Your task to perform on an android device: Search for "razer huntsman" on newegg.com, select the first entry, add it to the cart, then select checkout. Image 0: 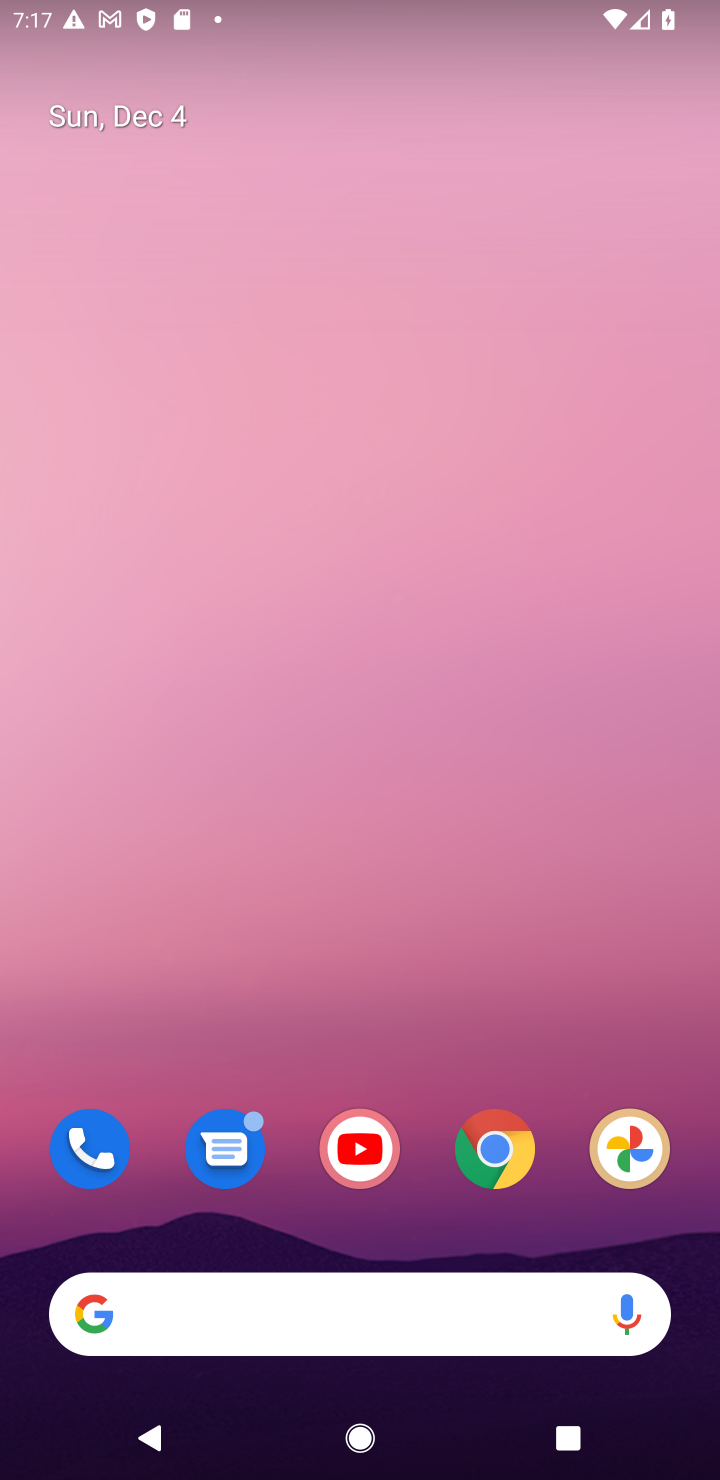
Step 0: drag from (397, 739) to (400, 481)
Your task to perform on an android device: Search for "razer huntsman" on newegg.com, select the first entry, add it to the cart, then select checkout. Image 1: 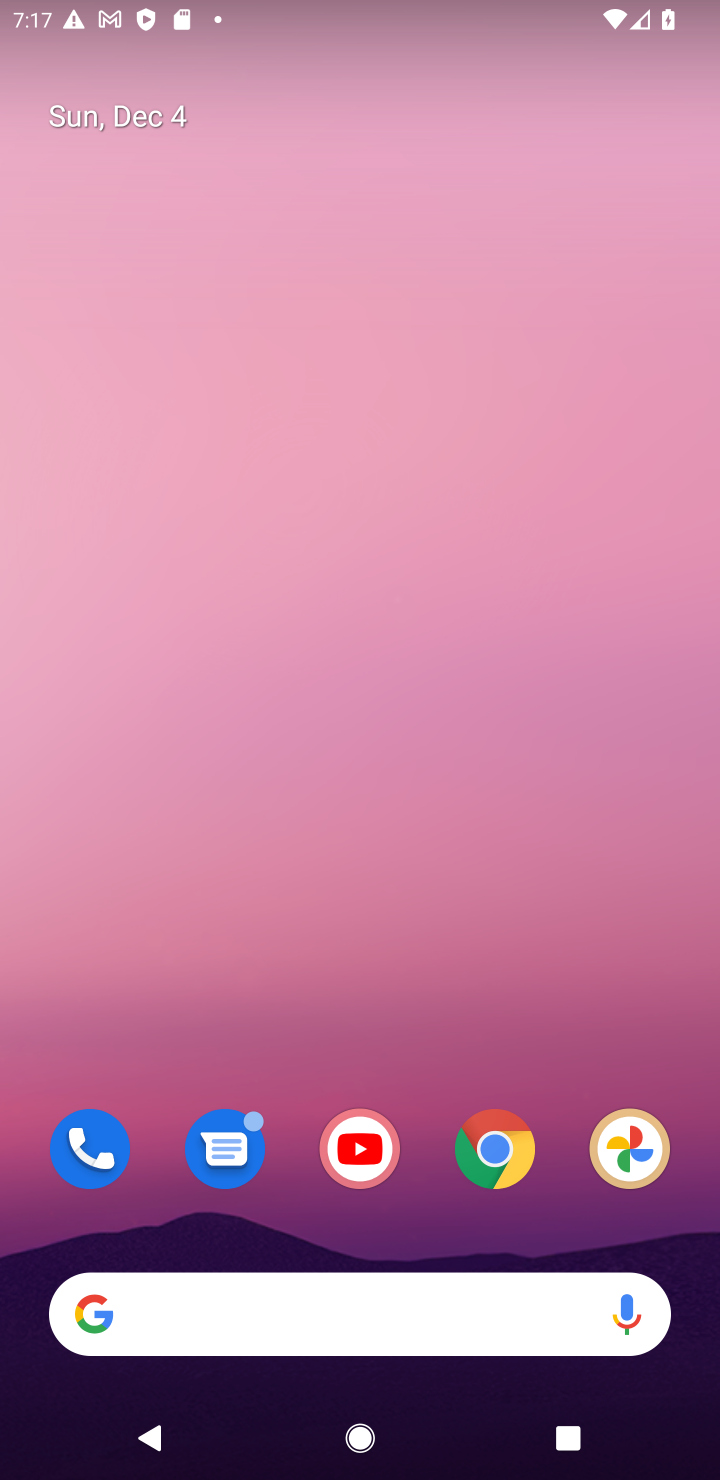
Step 1: drag from (331, 1327) to (366, 365)
Your task to perform on an android device: Search for "razer huntsman" on newegg.com, select the first entry, add it to the cart, then select checkout. Image 2: 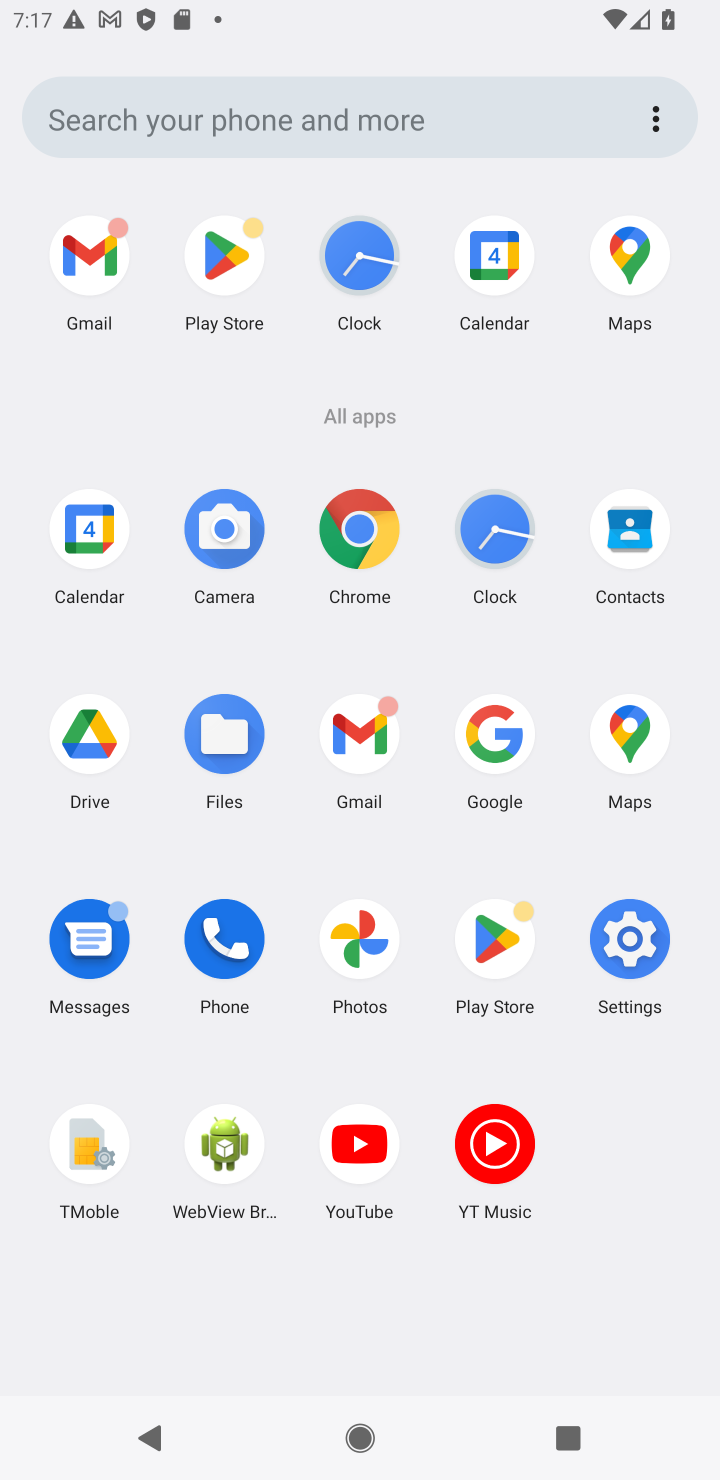
Step 2: click (498, 736)
Your task to perform on an android device: Search for "razer huntsman" on newegg.com, select the first entry, add it to the cart, then select checkout. Image 3: 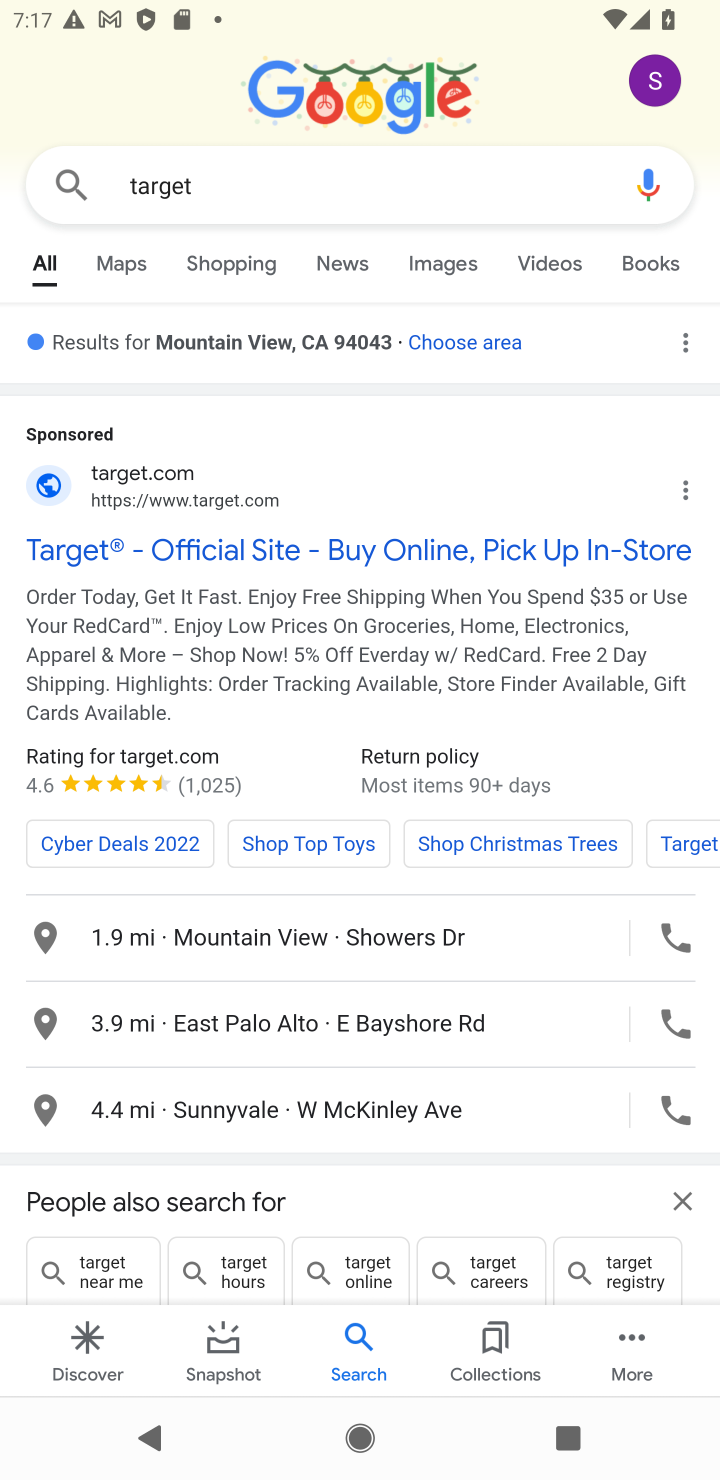
Step 3: click (199, 188)
Your task to perform on an android device: Search for "razer huntsman" on newegg.com, select the first entry, add it to the cart, then select checkout. Image 4: 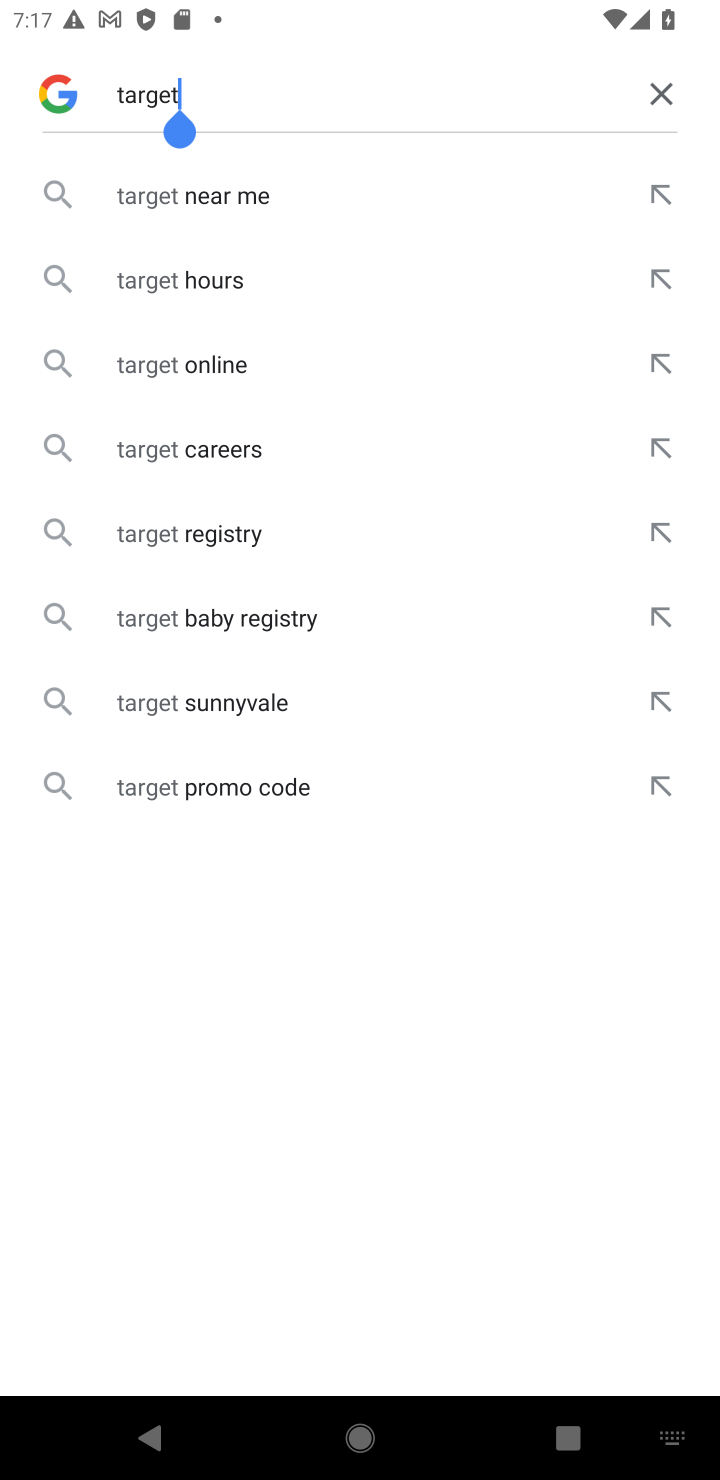
Step 4: click (660, 87)
Your task to perform on an android device: Search for "razer huntsman" on newegg.com, select the first entry, add it to the cart, then select checkout. Image 5: 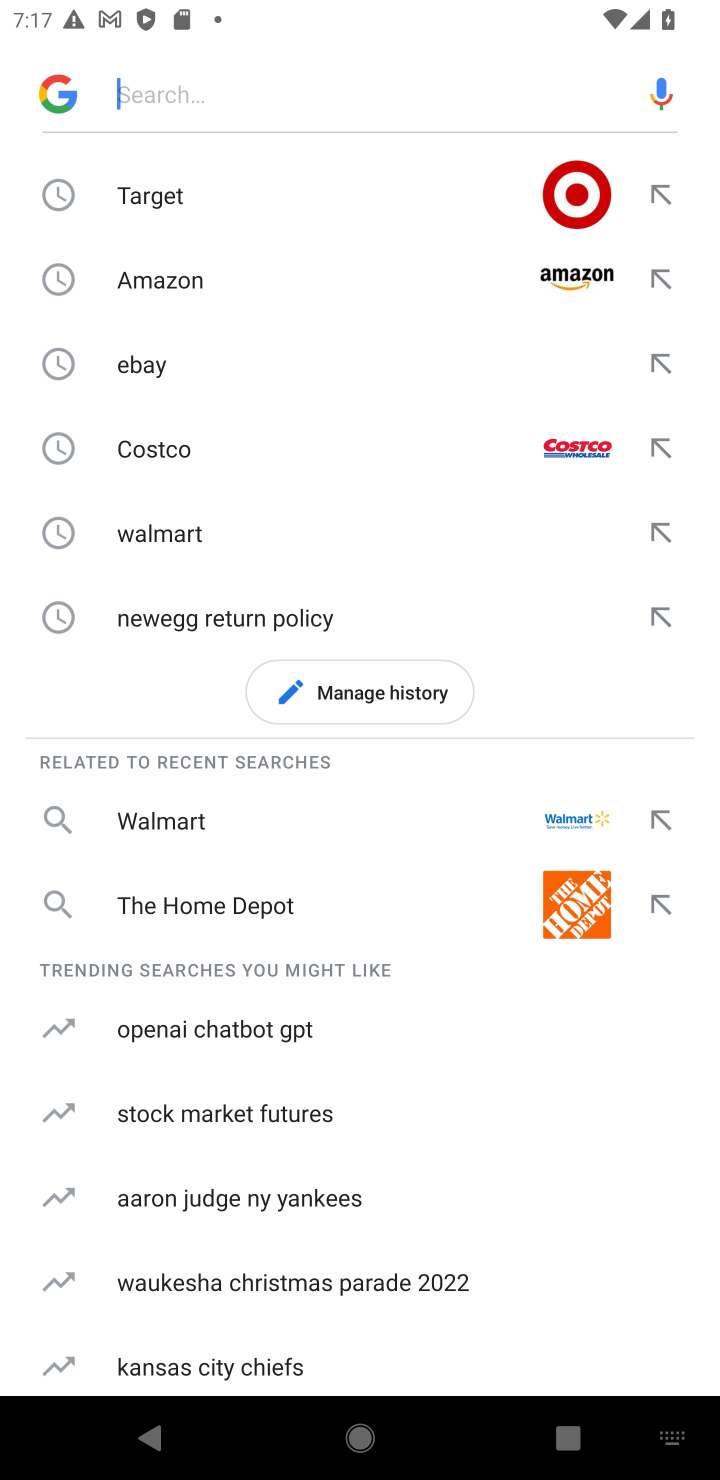
Step 5: drag from (248, 1102) to (252, 472)
Your task to perform on an android device: Search for "razer huntsman" on newegg.com, select the first entry, add it to the cart, then select checkout. Image 6: 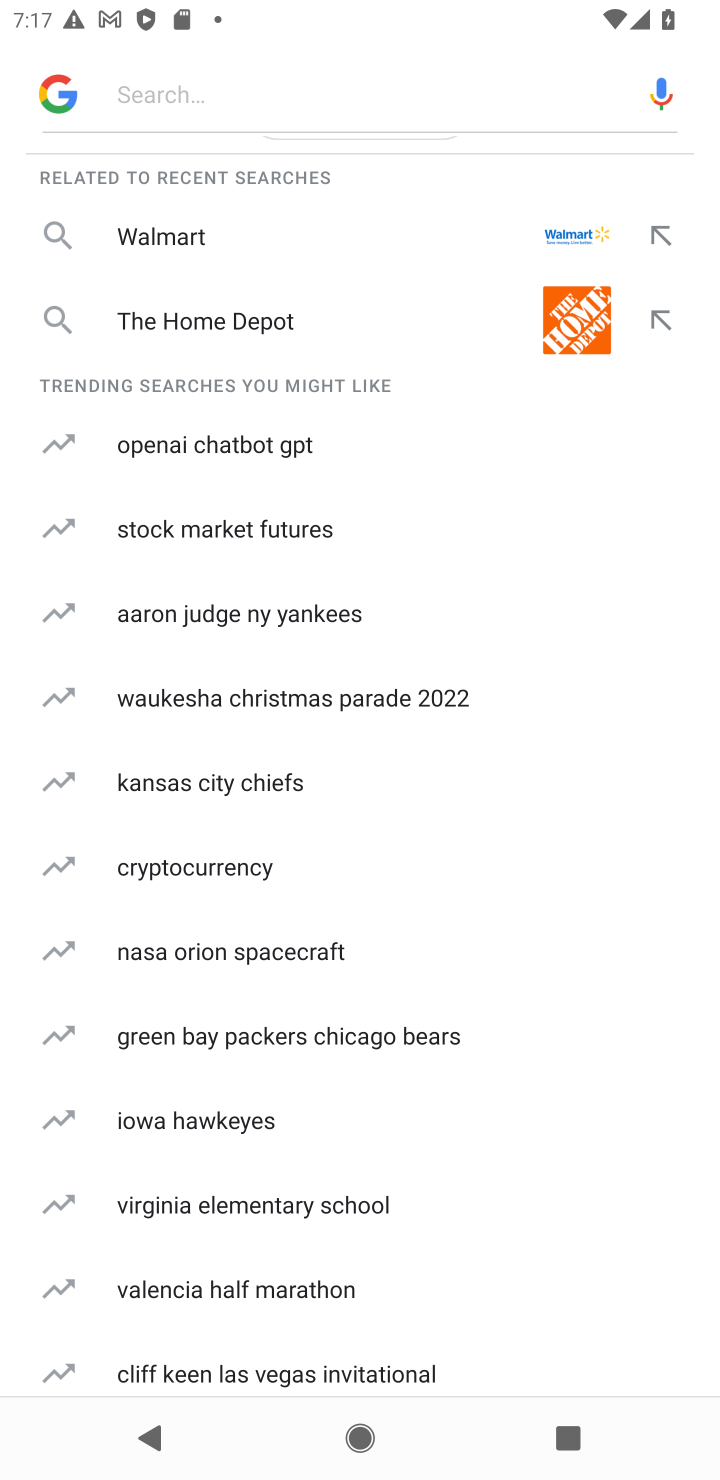
Step 6: drag from (238, 1138) to (260, 556)
Your task to perform on an android device: Search for "razer huntsman" on newegg.com, select the first entry, add it to the cart, then select checkout. Image 7: 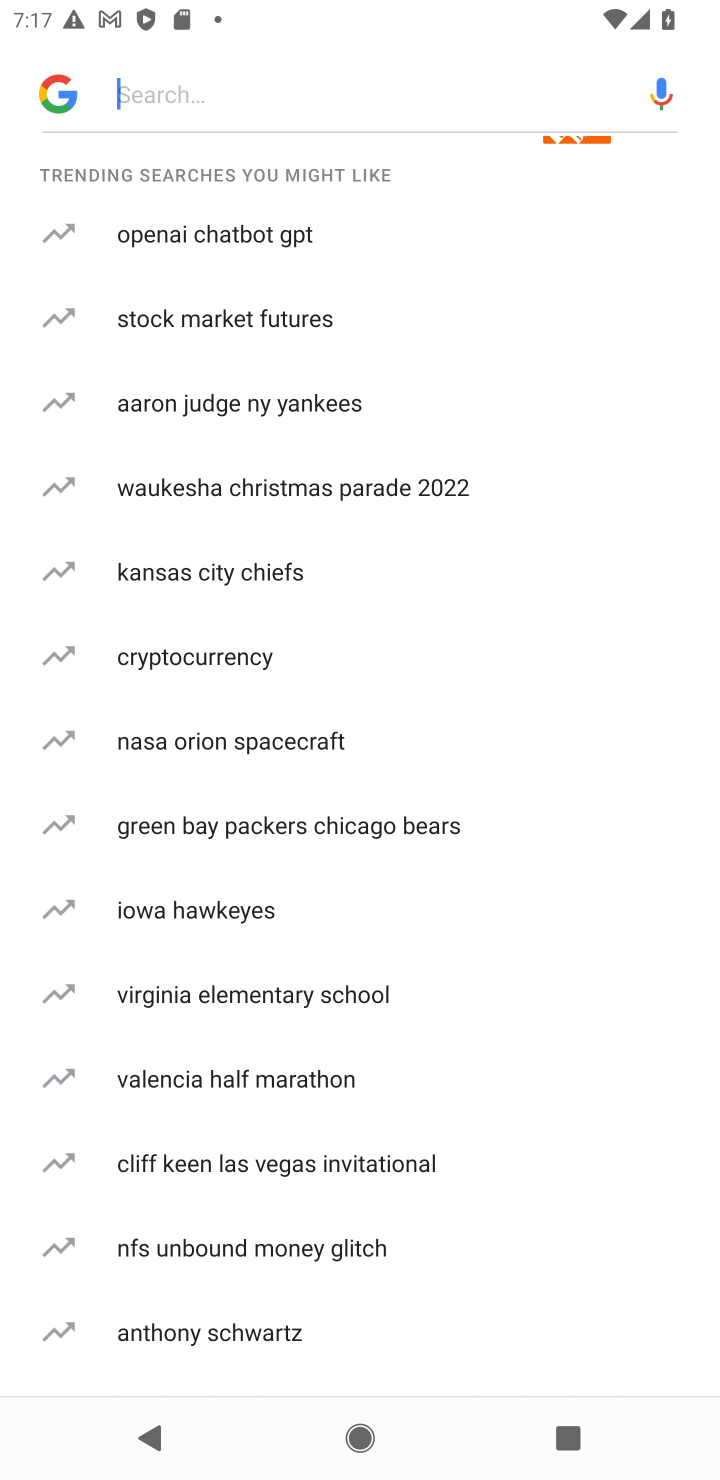
Step 7: type "newegg"
Your task to perform on an android device: Search for "razer huntsman" on newegg.com, select the first entry, add it to the cart, then select checkout. Image 8: 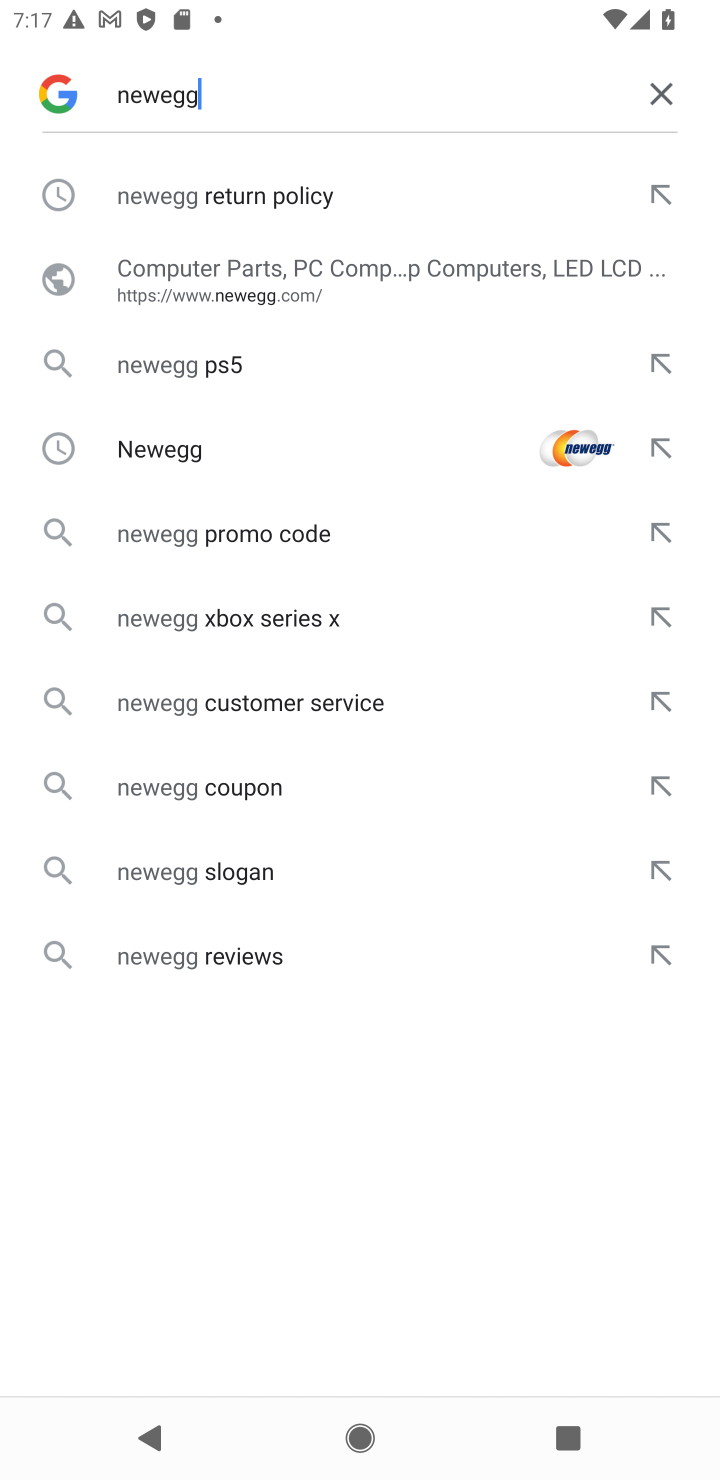
Step 8: click (235, 271)
Your task to perform on an android device: Search for "razer huntsman" on newegg.com, select the first entry, add it to the cart, then select checkout. Image 9: 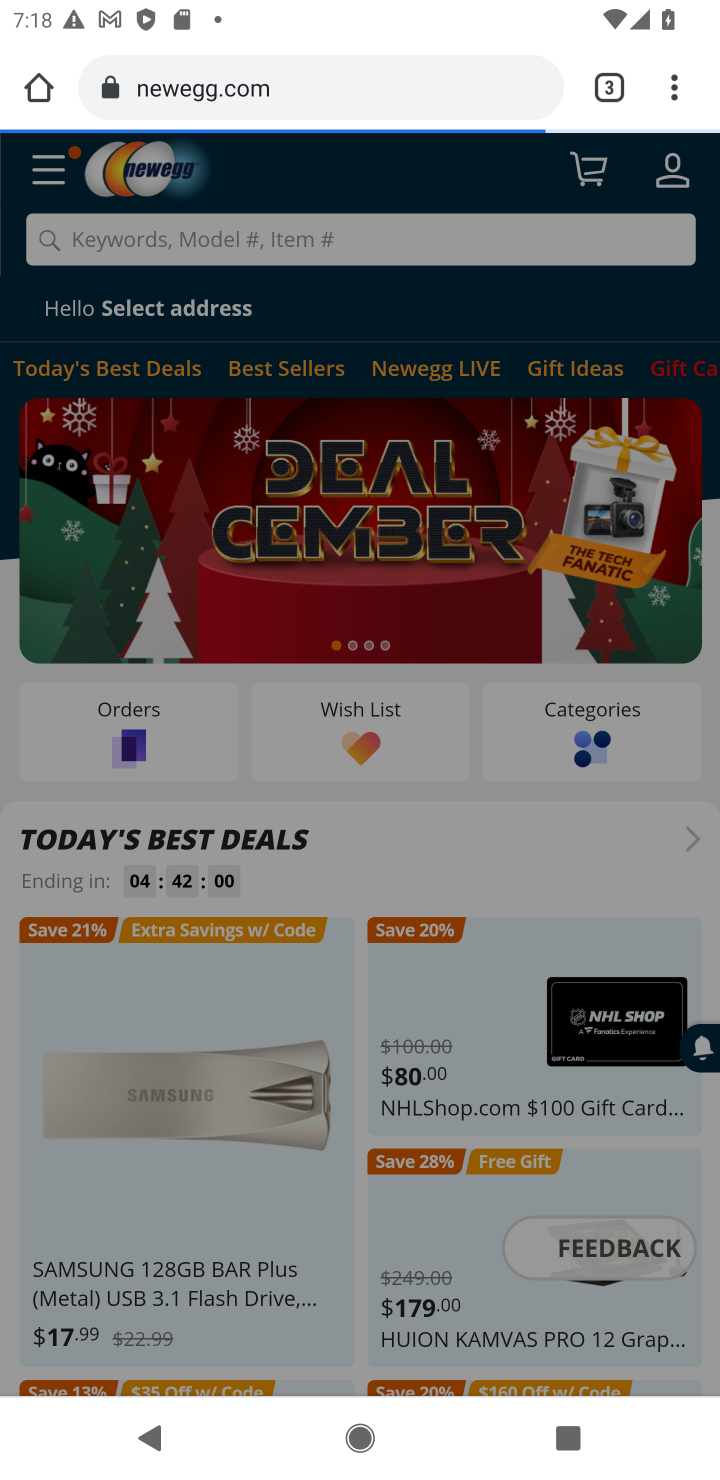
Step 9: click (321, 240)
Your task to perform on an android device: Search for "razer huntsman" on newegg.com, select the first entry, add it to the cart, then select checkout. Image 10: 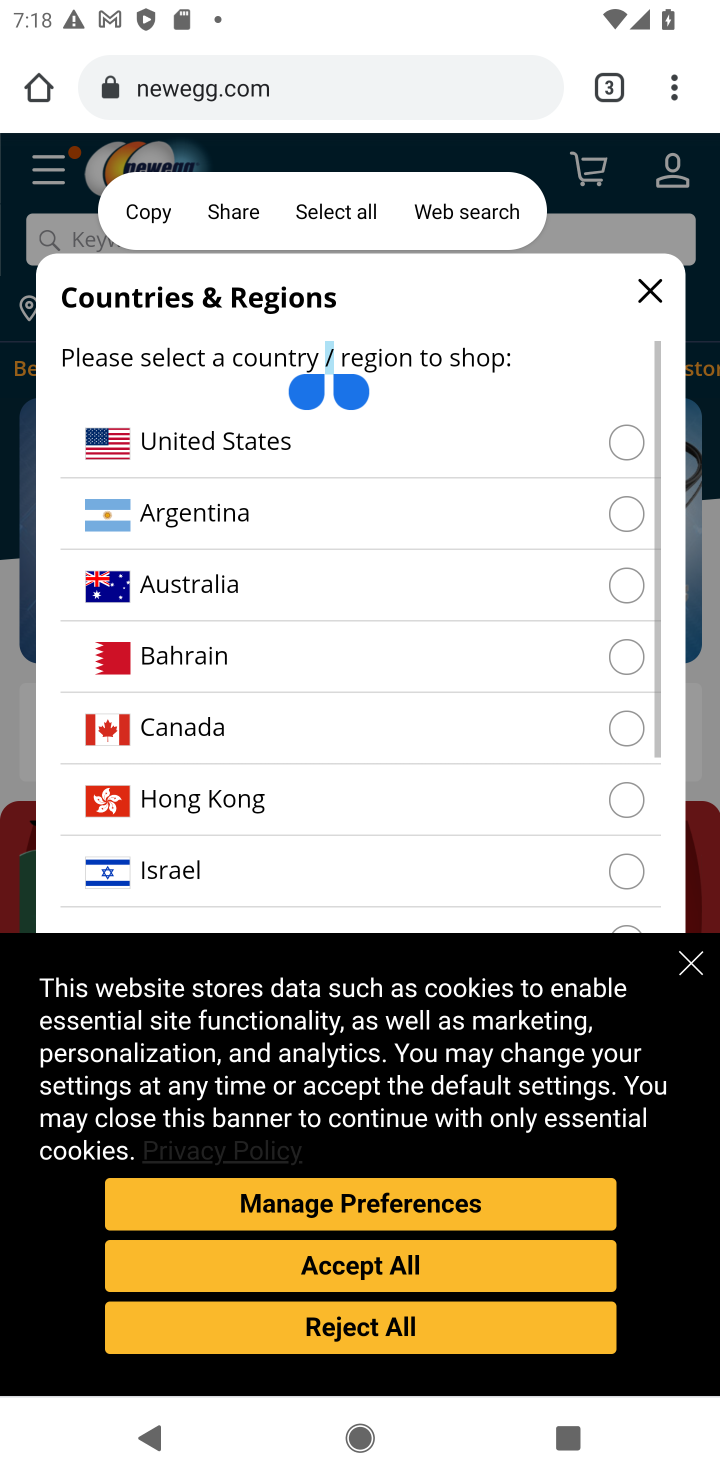
Step 10: click (656, 284)
Your task to perform on an android device: Search for "razer huntsman" on newegg.com, select the first entry, add it to the cart, then select checkout. Image 11: 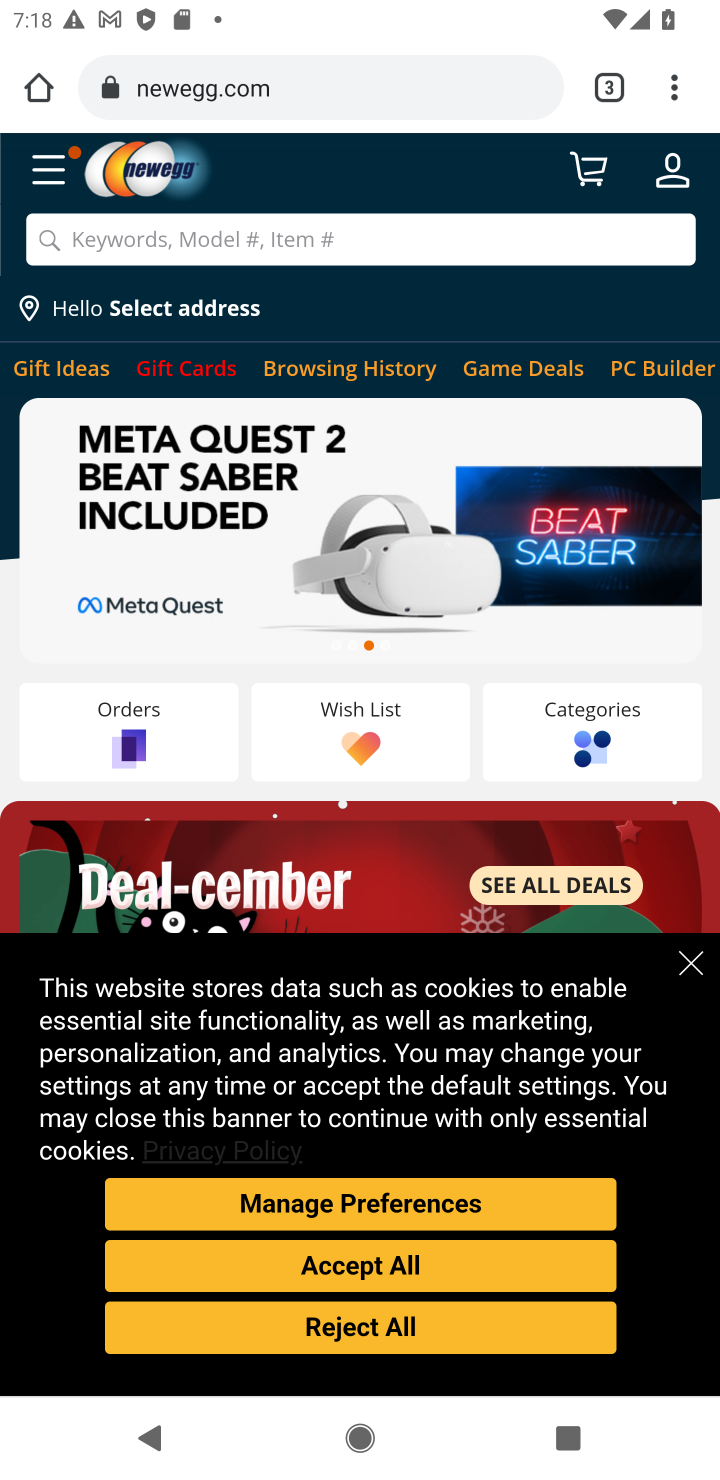
Step 11: type "razer huntsman"
Your task to perform on an android device: Search for "razer huntsman" on newegg.com, select the first entry, add it to the cart, then select checkout. Image 12: 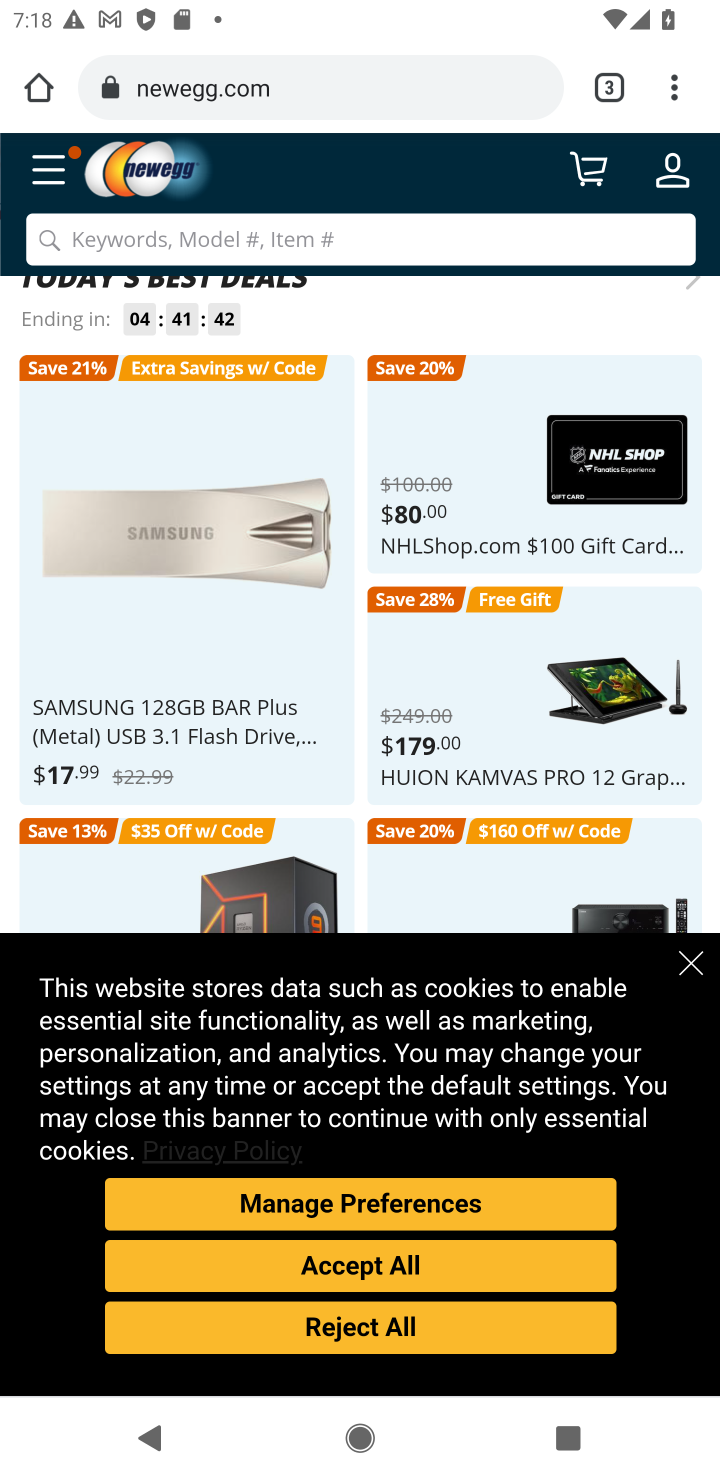
Step 12: click (699, 962)
Your task to perform on an android device: Search for "razer huntsman" on newegg.com, select the first entry, add it to the cart, then select checkout. Image 13: 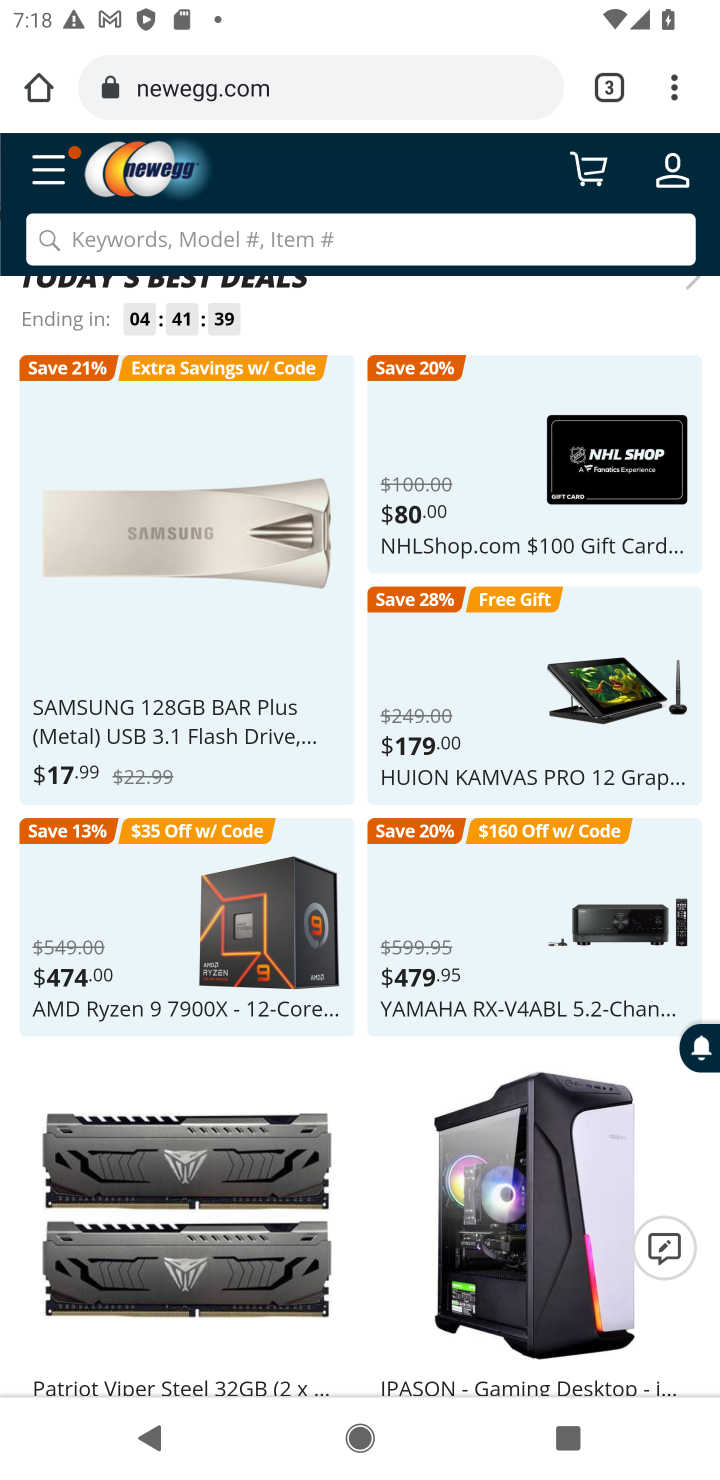
Step 13: click (128, 240)
Your task to perform on an android device: Search for "razer huntsman" on newegg.com, select the first entry, add it to the cart, then select checkout. Image 14: 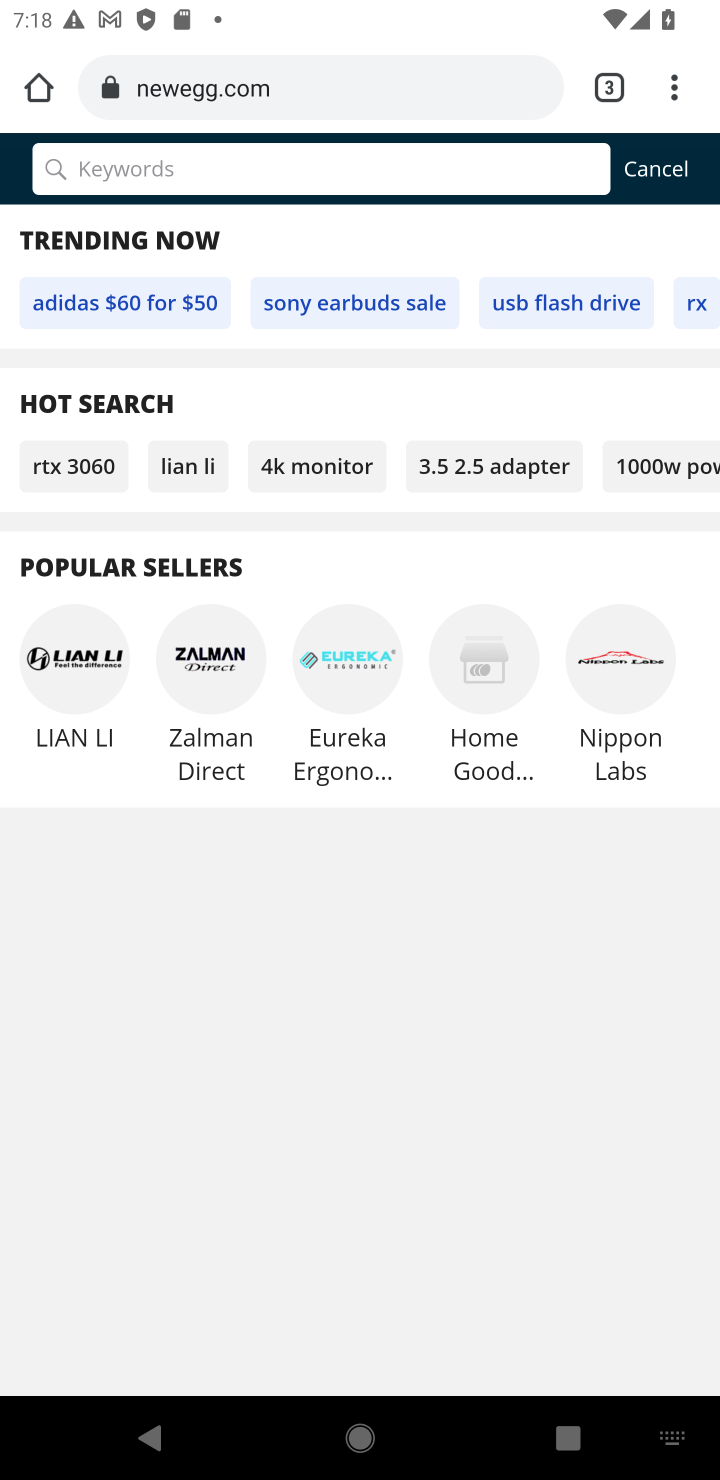
Step 14: click (93, 171)
Your task to perform on an android device: Search for "razer huntsman" on newegg.com, select the first entry, add it to the cart, then select checkout. Image 15: 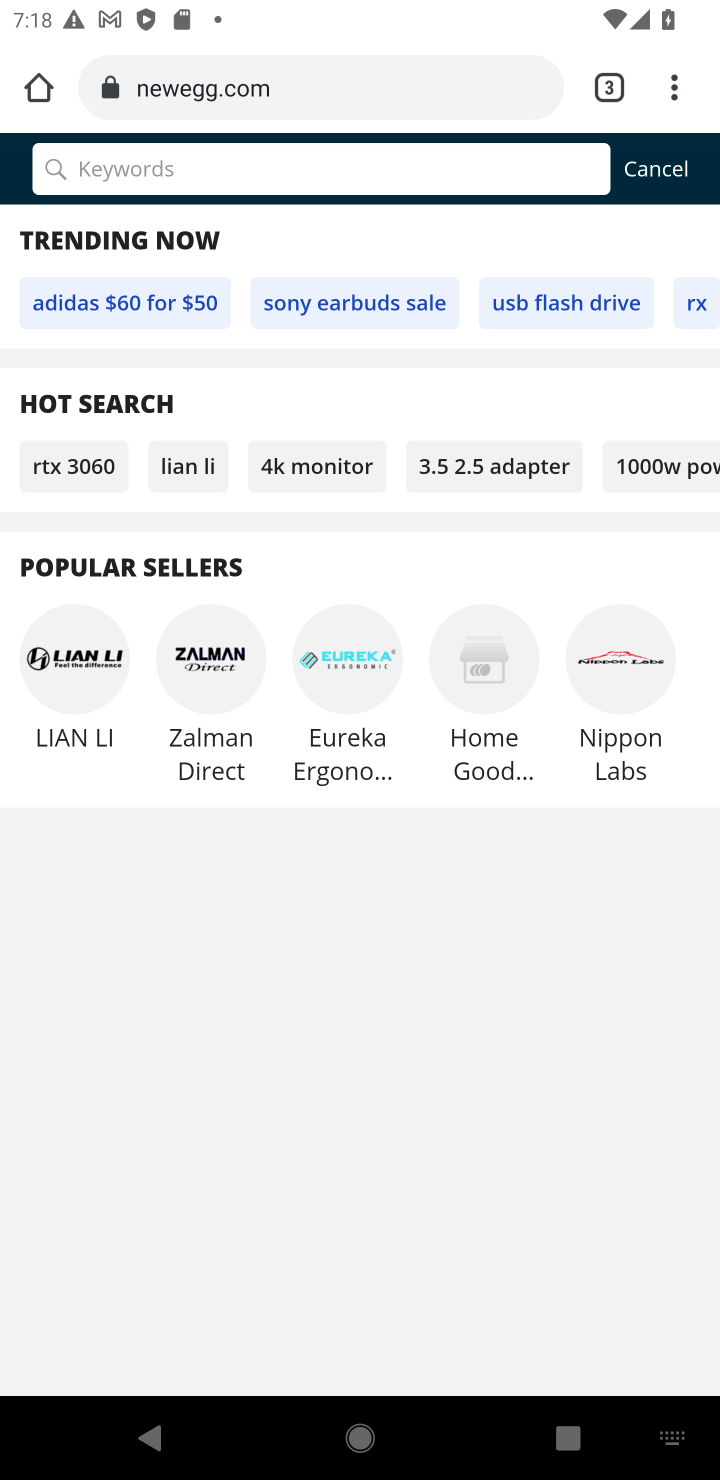
Step 15: type "razer huntsman"
Your task to perform on an android device: Search for "razer huntsman" on newegg.com, select the first entry, add it to the cart, then select checkout. Image 16: 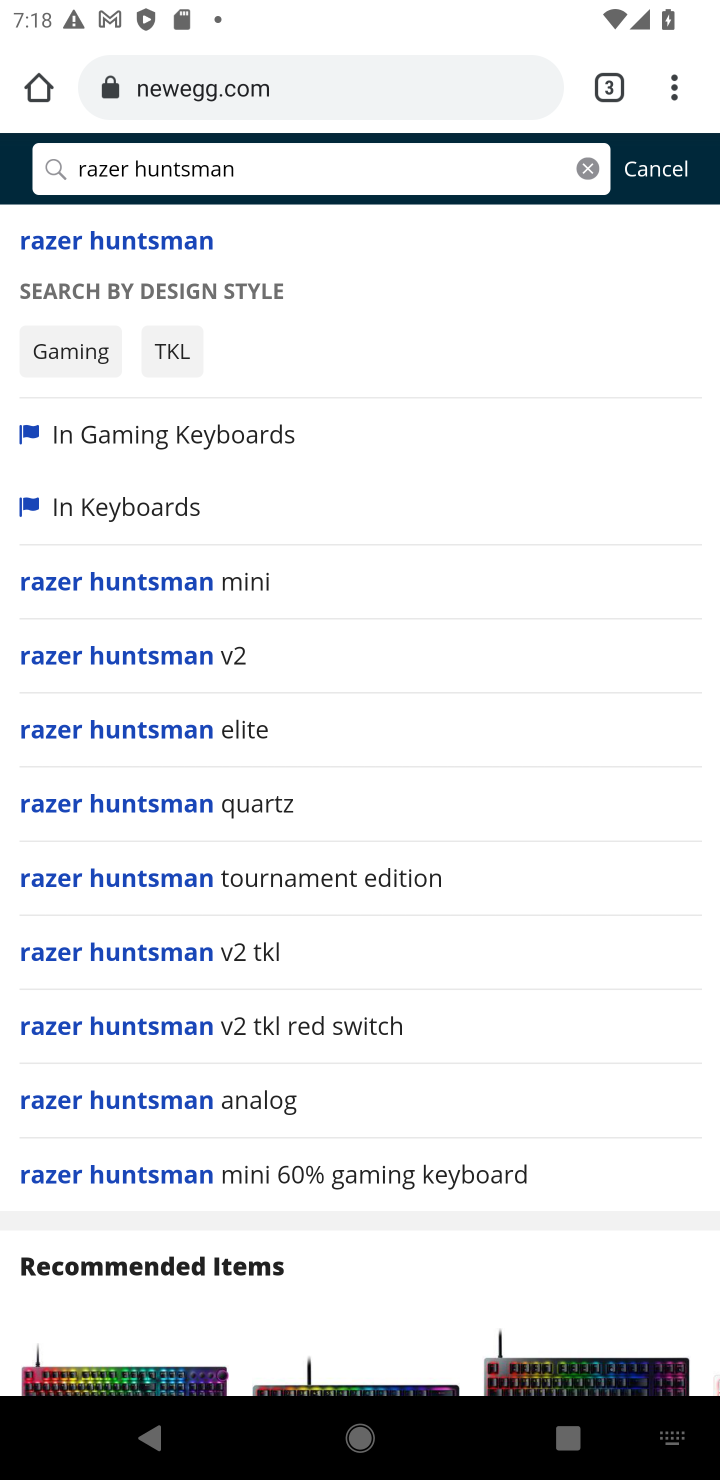
Step 16: click (117, 592)
Your task to perform on an android device: Search for "razer huntsman" on newegg.com, select the first entry, add it to the cart, then select checkout. Image 17: 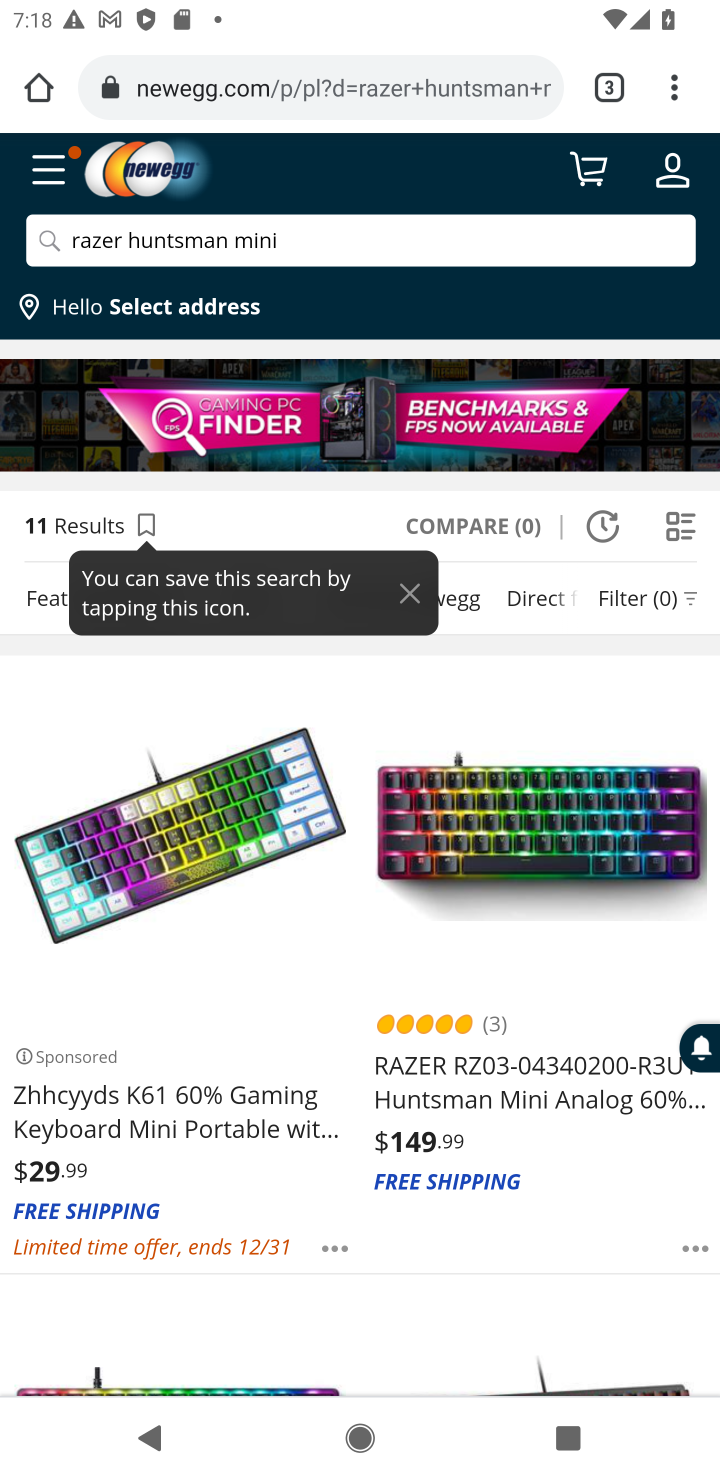
Step 17: drag from (150, 1229) to (150, 620)
Your task to perform on an android device: Search for "razer huntsman" on newegg.com, select the first entry, add it to the cart, then select checkout. Image 18: 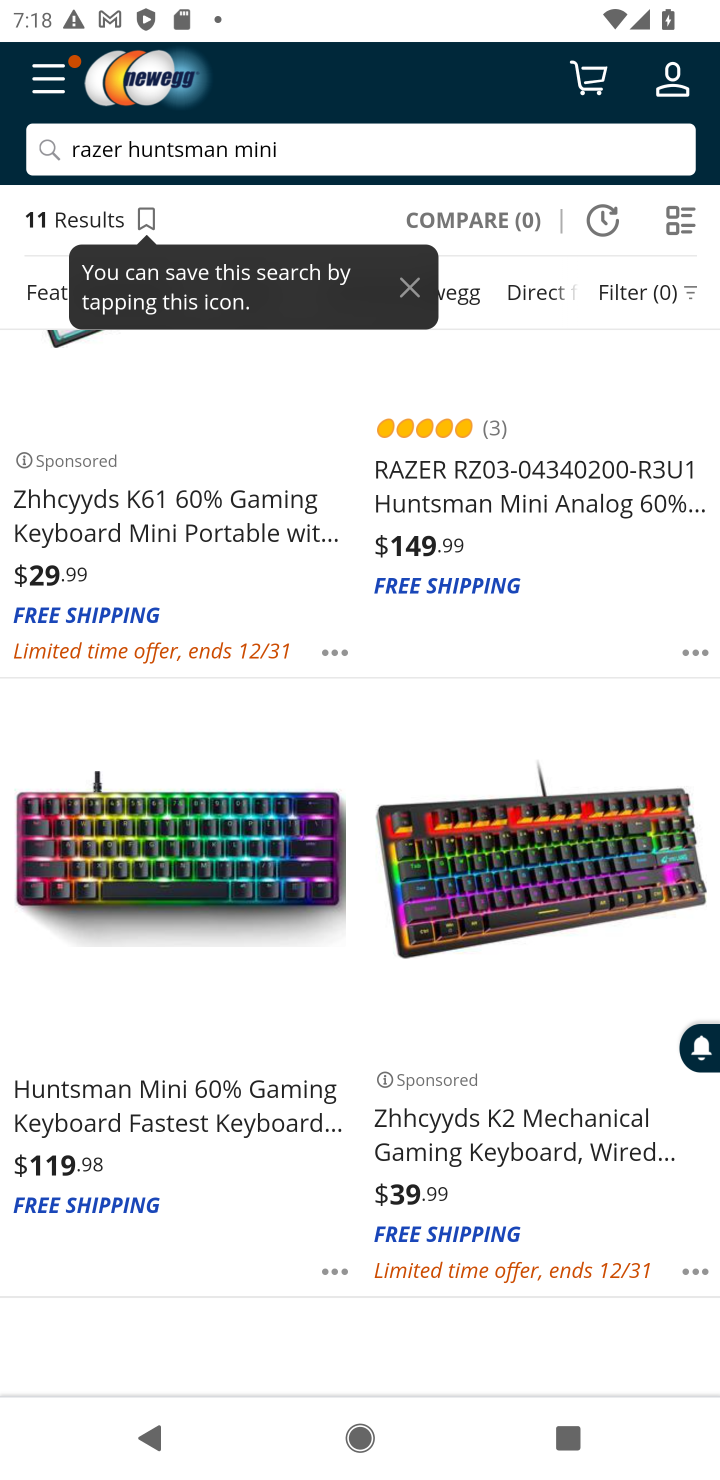
Step 18: click (132, 566)
Your task to perform on an android device: Search for "razer huntsman" on newegg.com, select the first entry, add it to the cart, then select checkout. Image 19: 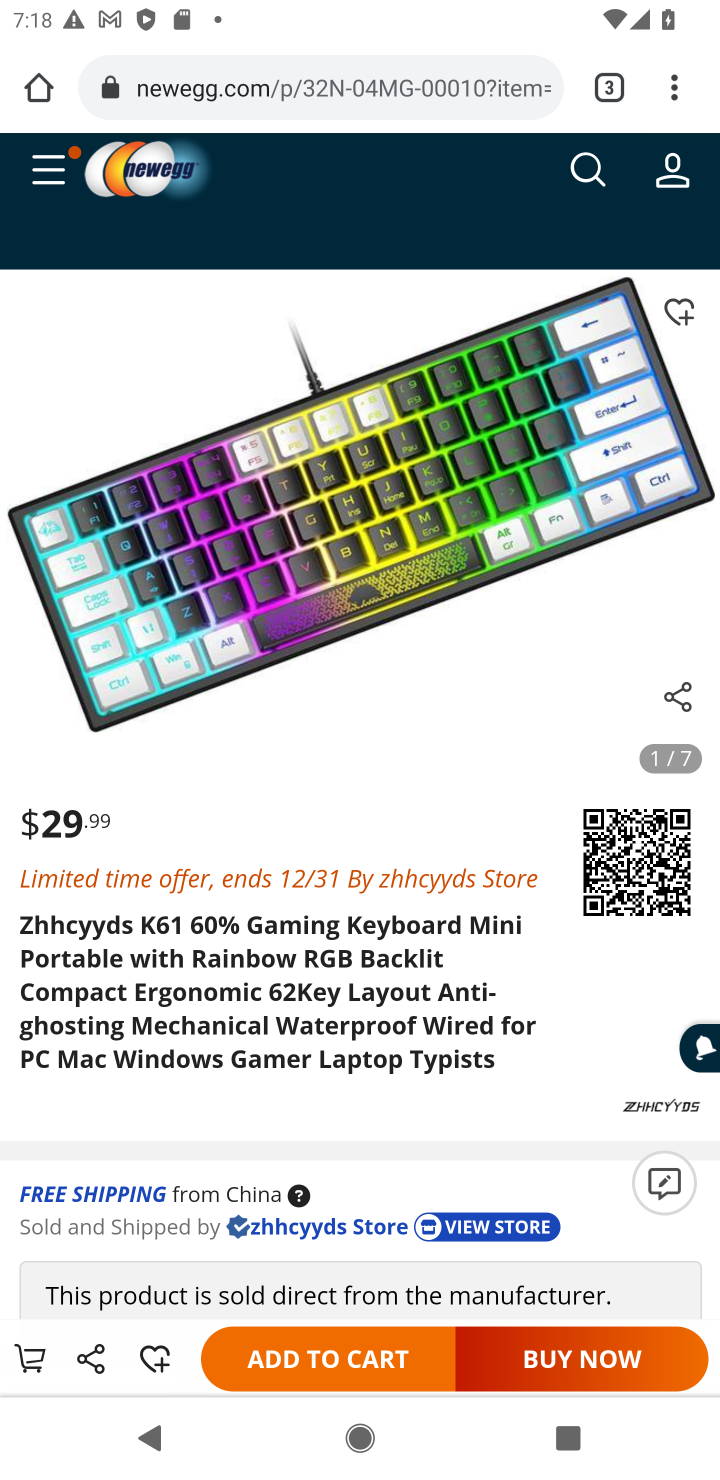
Step 19: click (351, 1366)
Your task to perform on an android device: Search for "razer huntsman" on newegg.com, select the first entry, add it to the cart, then select checkout. Image 20: 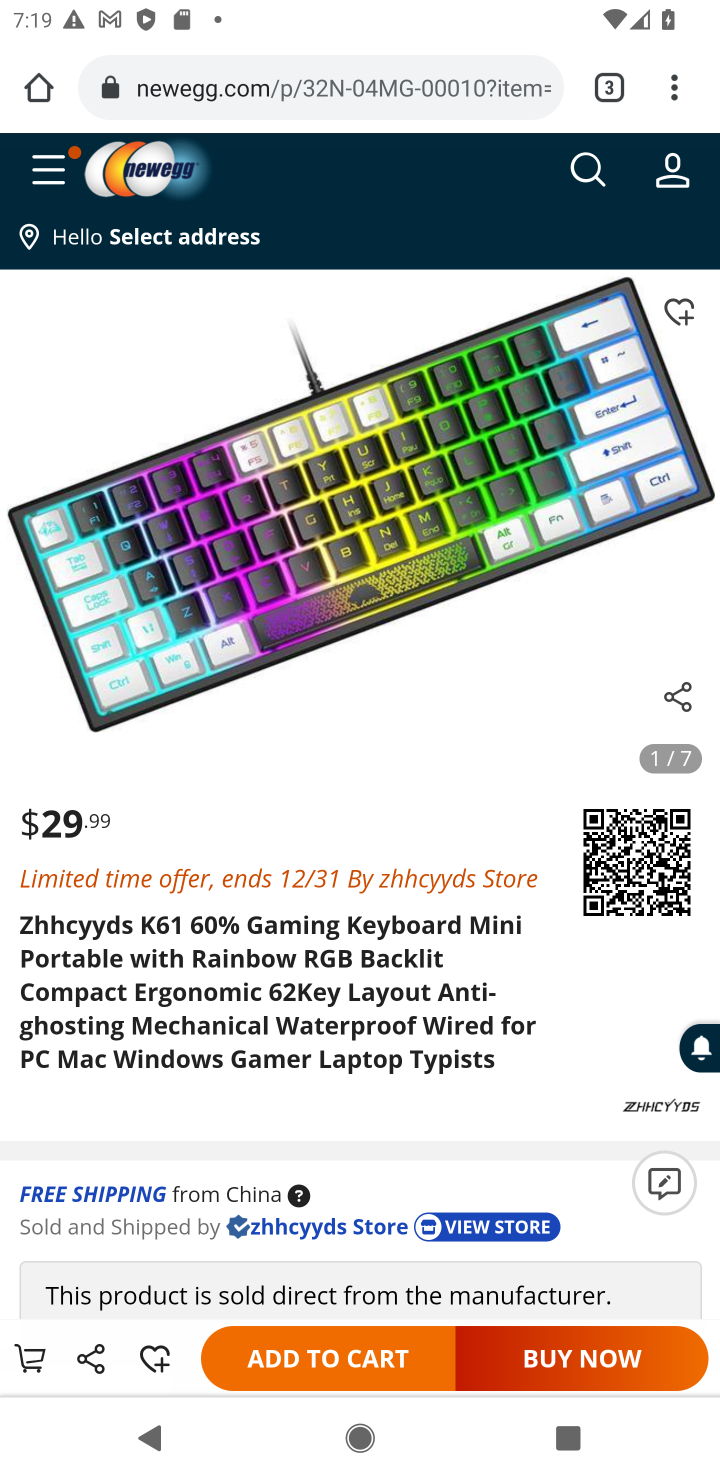
Step 20: click (350, 1363)
Your task to perform on an android device: Search for "razer huntsman" on newegg.com, select the first entry, add it to the cart, then select checkout. Image 21: 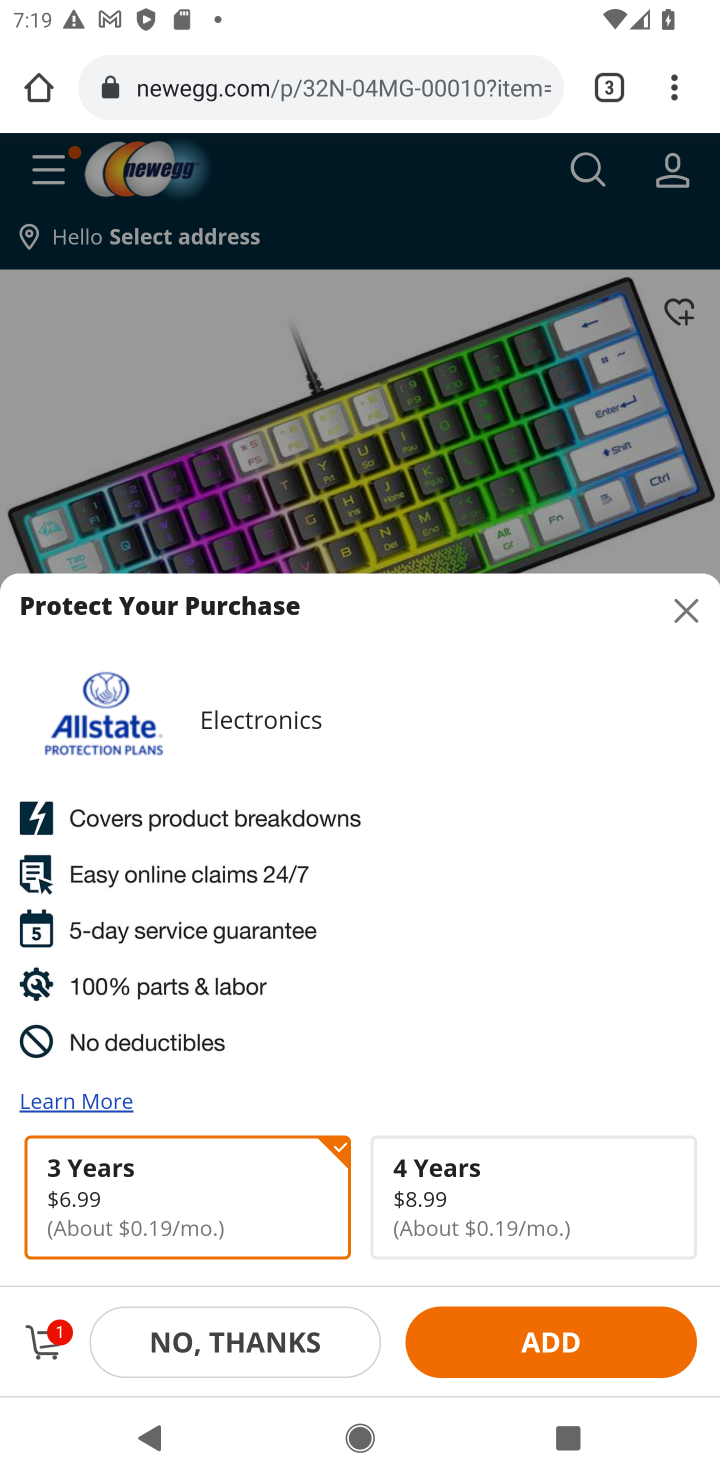
Step 21: click (698, 619)
Your task to perform on an android device: Search for "razer huntsman" on newegg.com, select the first entry, add it to the cart, then select checkout. Image 22: 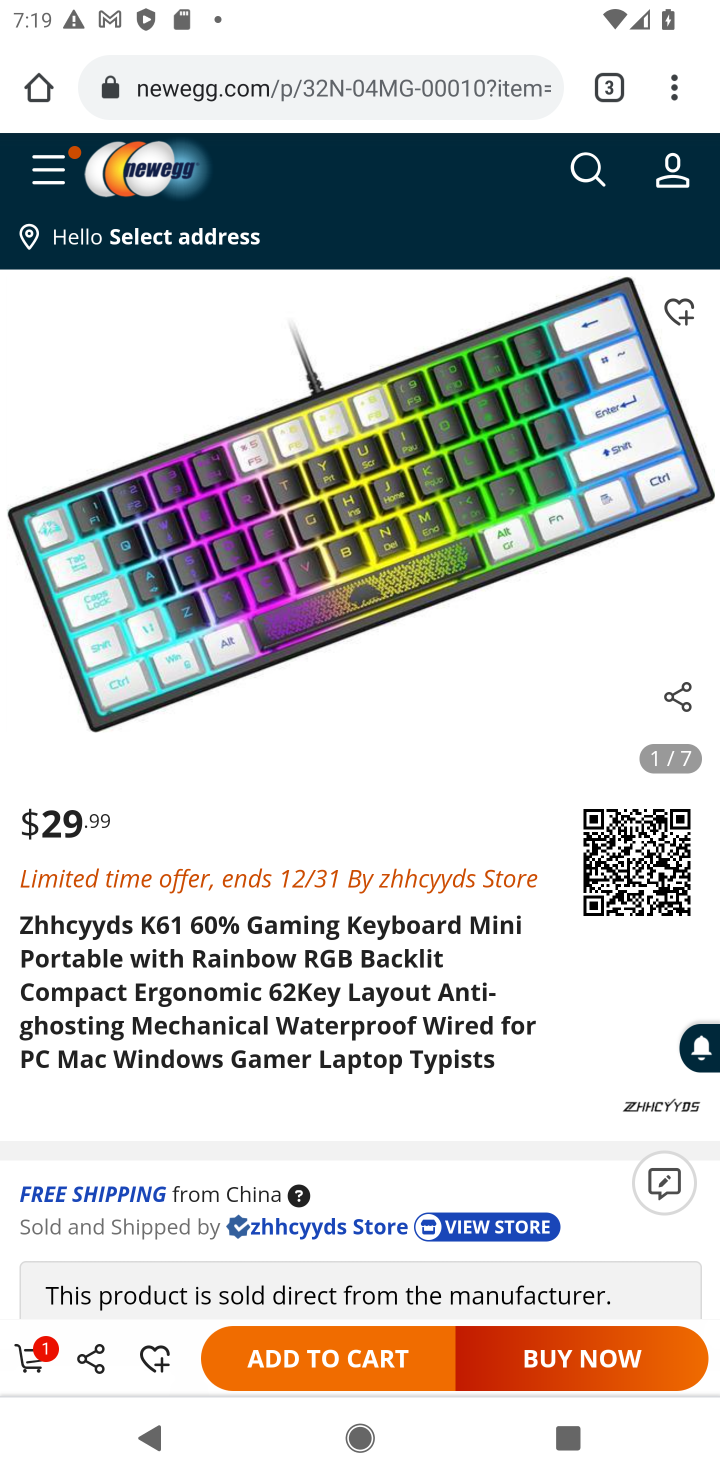
Step 22: click (364, 1363)
Your task to perform on an android device: Search for "razer huntsman" on newegg.com, select the first entry, add it to the cart, then select checkout. Image 23: 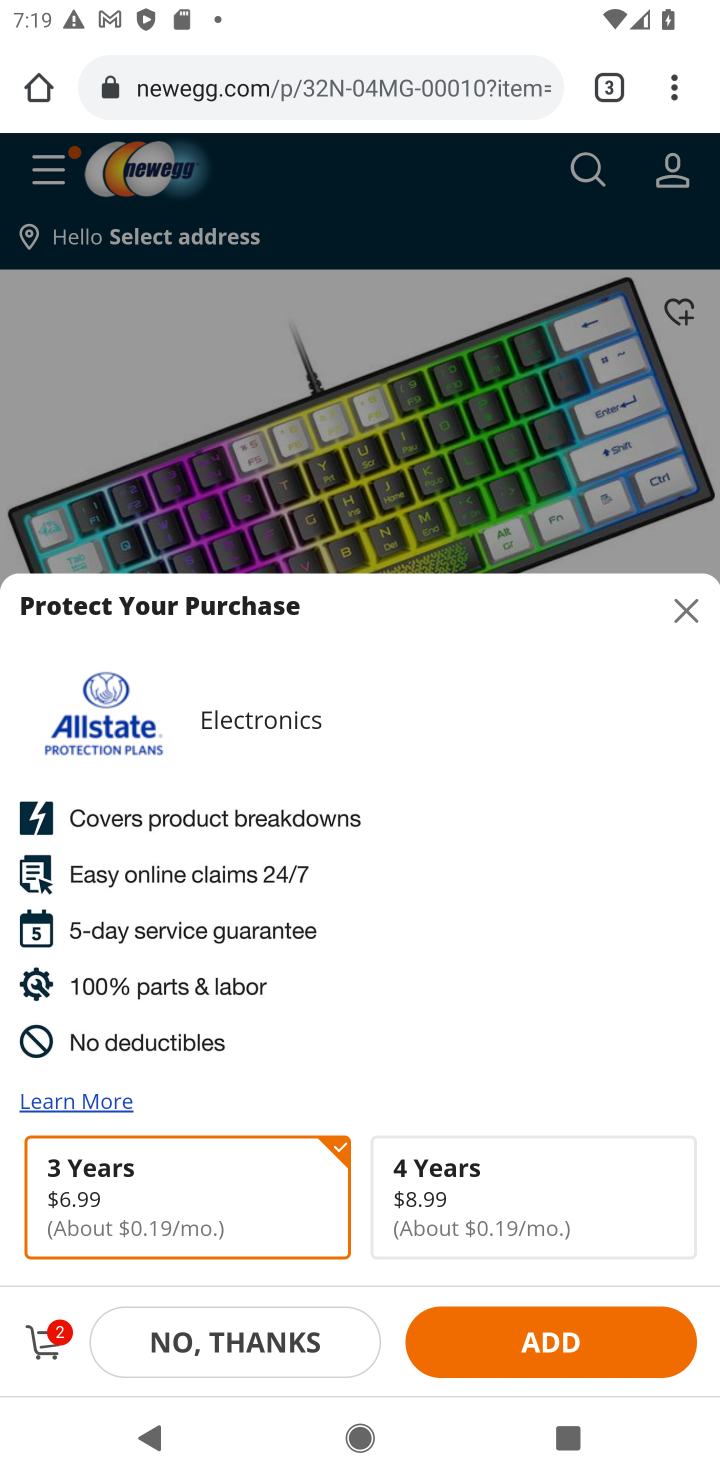
Step 23: click (497, 1351)
Your task to perform on an android device: Search for "razer huntsman" on newegg.com, select the first entry, add it to the cart, then select checkout. Image 24: 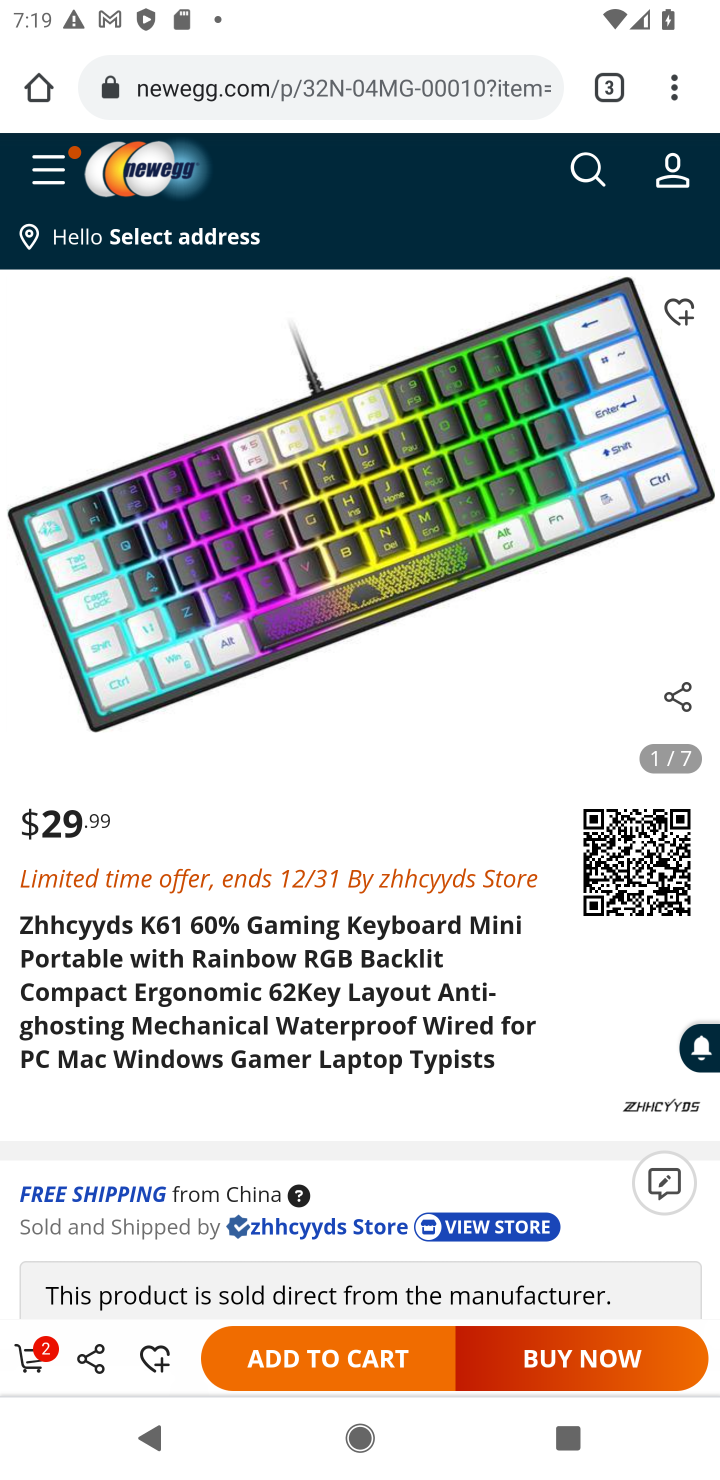
Step 24: click (33, 1374)
Your task to perform on an android device: Search for "razer huntsman" on newegg.com, select the first entry, add it to the cart, then select checkout. Image 25: 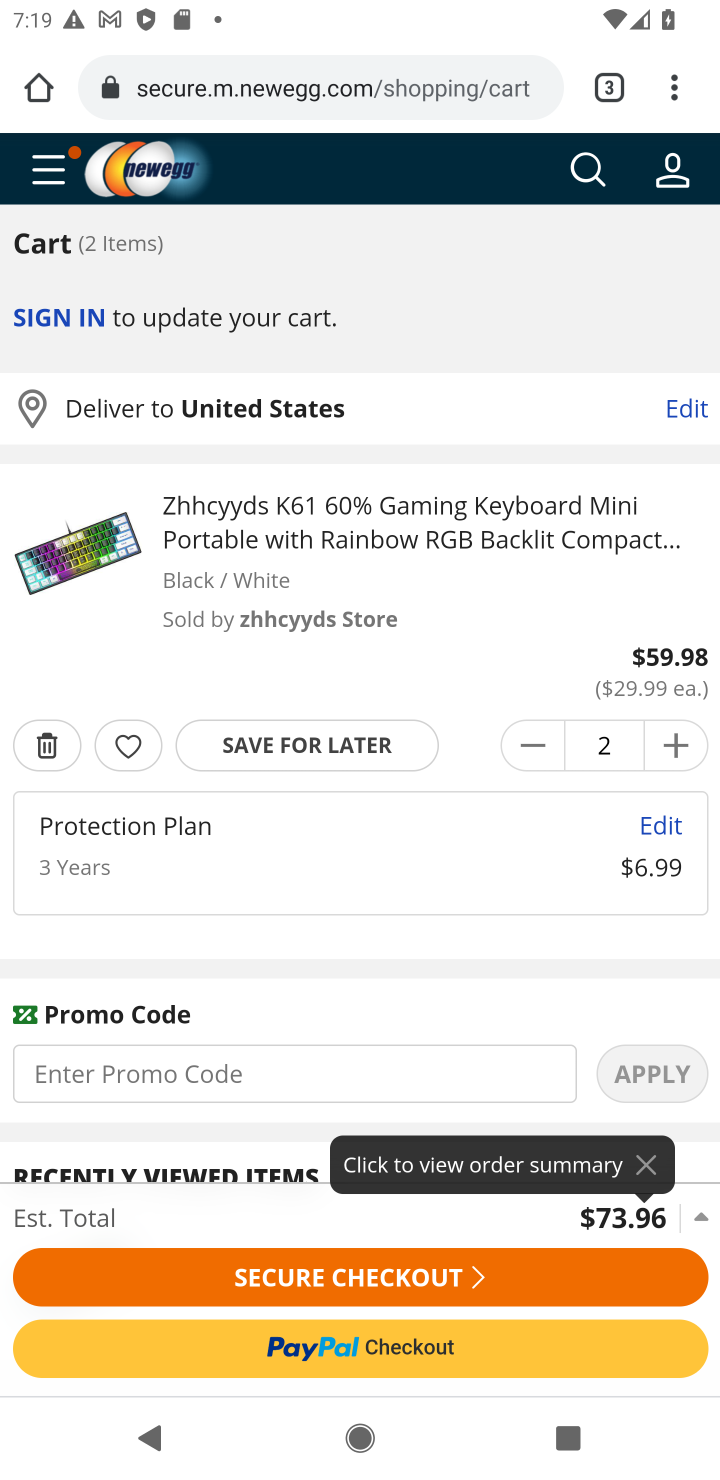
Step 25: click (358, 1240)
Your task to perform on an android device: Search for "razer huntsman" on newegg.com, select the first entry, add it to the cart, then select checkout. Image 26: 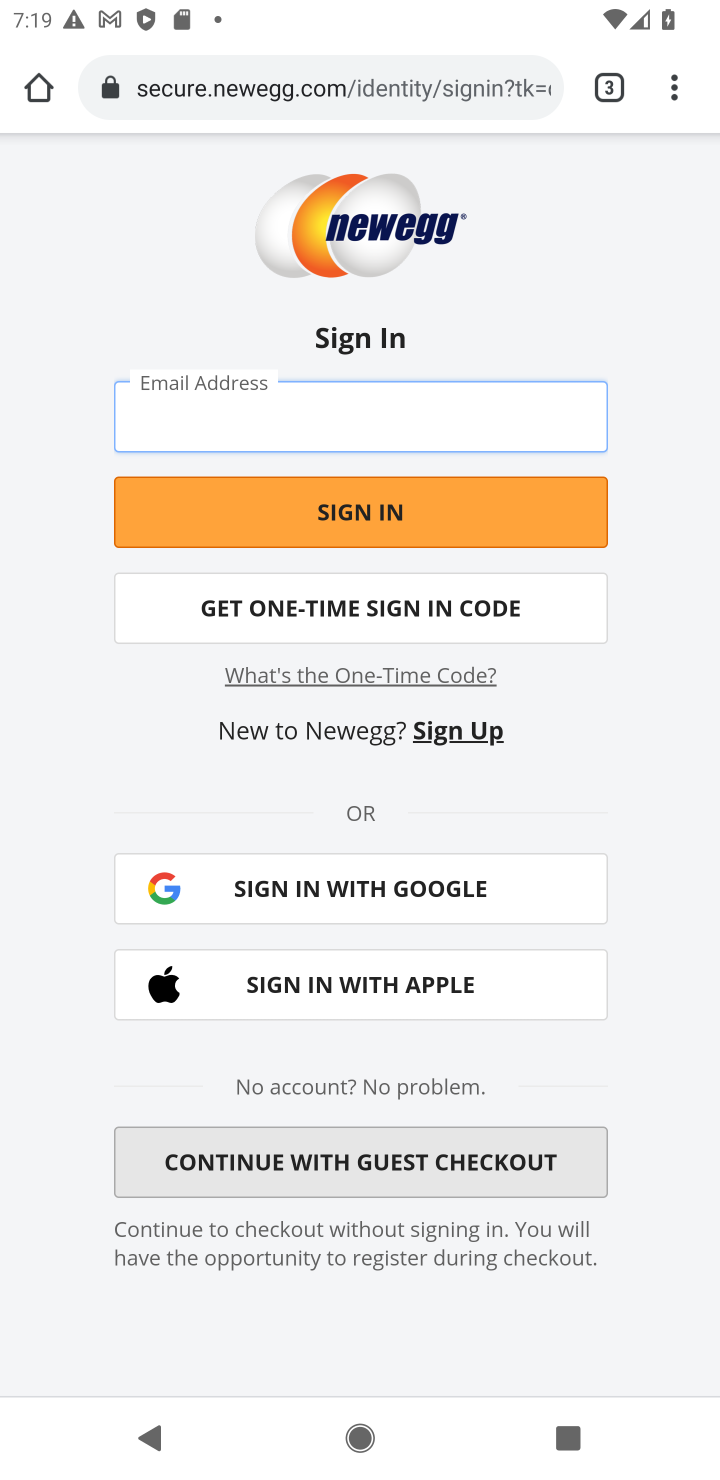
Step 26: task complete